Your task to perform on an android device: Find coffee shops on Maps Image 0: 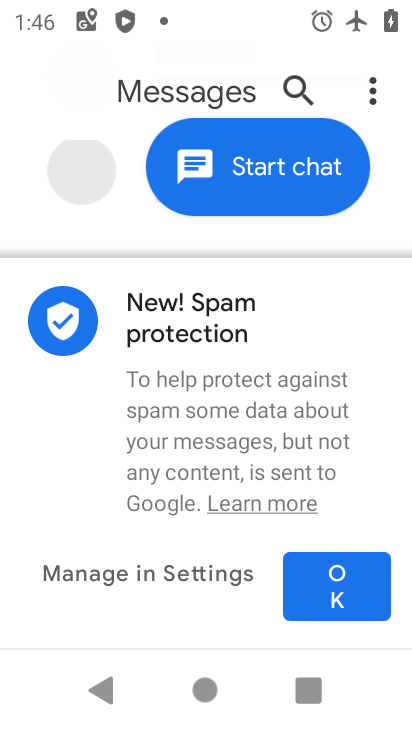
Step 0: press home button
Your task to perform on an android device: Find coffee shops on Maps Image 1: 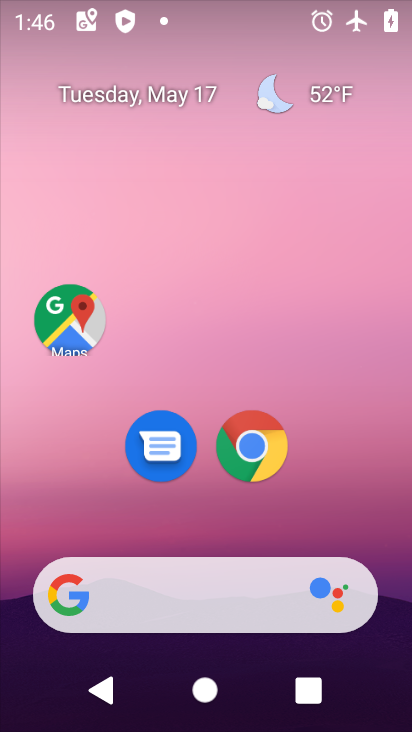
Step 1: click (75, 313)
Your task to perform on an android device: Find coffee shops on Maps Image 2: 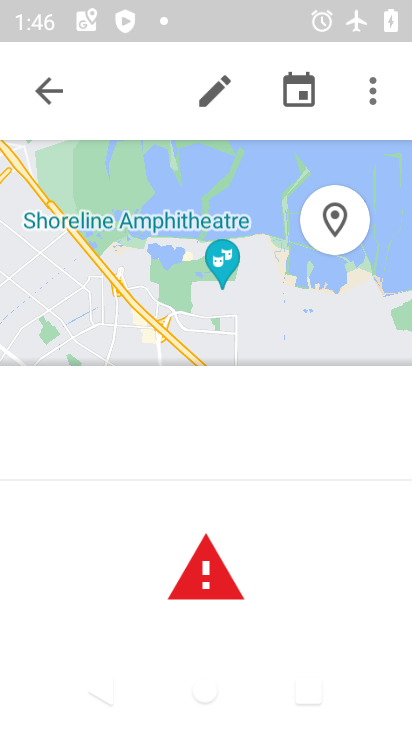
Step 2: click (217, 82)
Your task to perform on an android device: Find coffee shops on Maps Image 3: 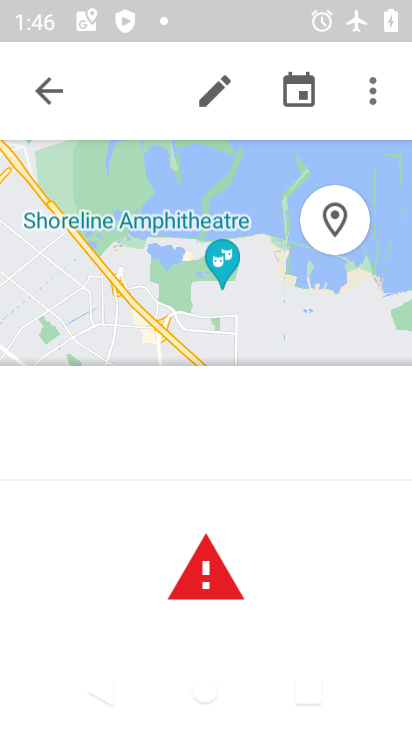
Step 3: type "coffee shops"
Your task to perform on an android device: Find coffee shops on Maps Image 4: 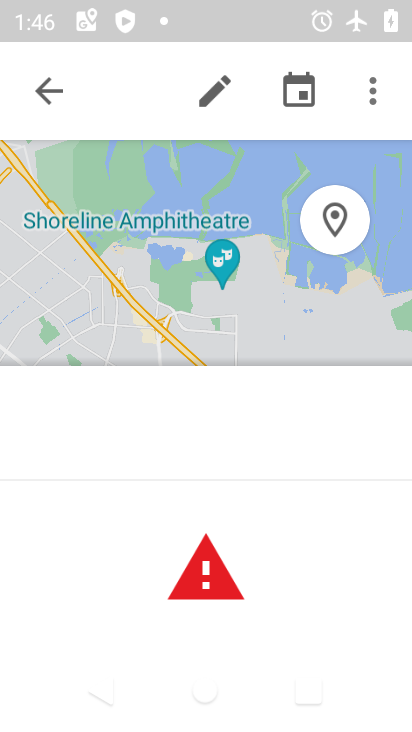
Step 4: task complete